Your task to perform on an android device: read, delete, or share a saved page in the chrome app Image 0: 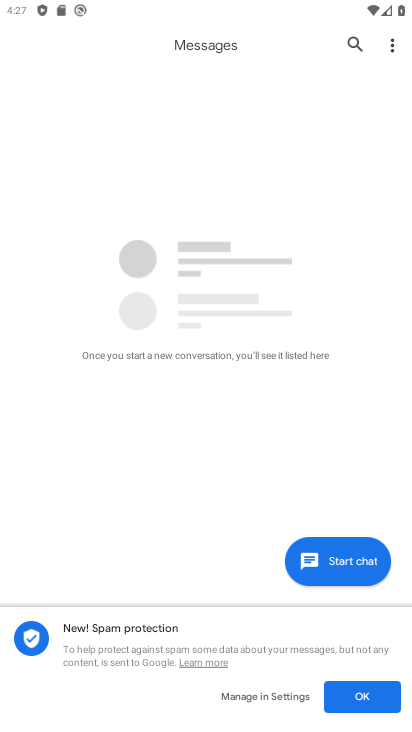
Step 0: press back button
Your task to perform on an android device: read, delete, or share a saved page in the chrome app Image 1: 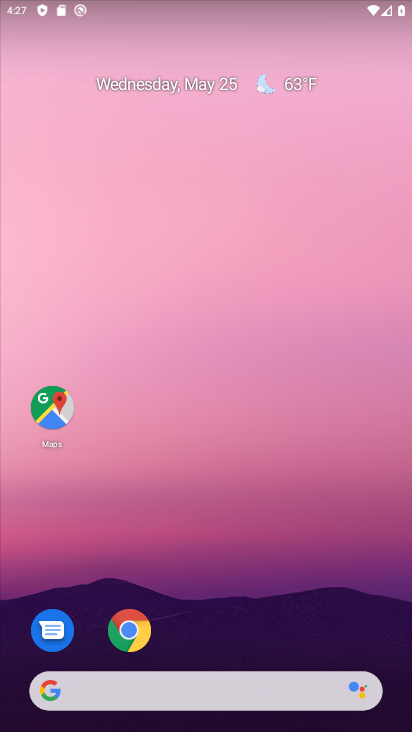
Step 1: click (120, 638)
Your task to perform on an android device: read, delete, or share a saved page in the chrome app Image 2: 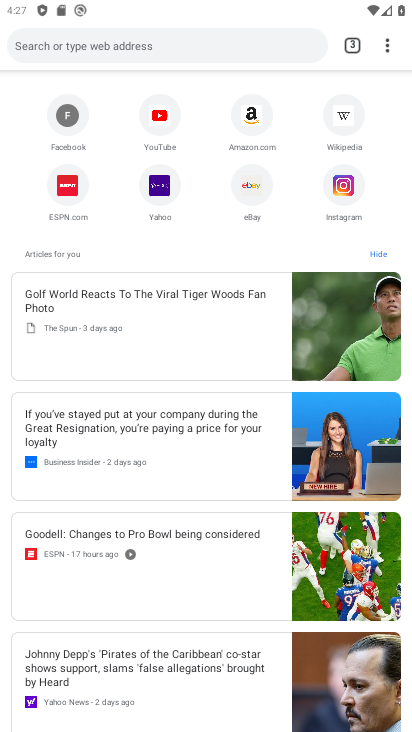
Step 2: drag from (384, 49) to (220, 302)
Your task to perform on an android device: read, delete, or share a saved page in the chrome app Image 3: 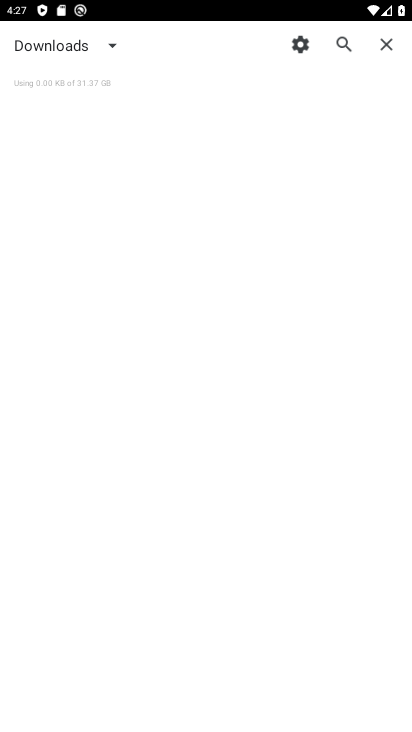
Step 3: click (105, 51)
Your task to perform on an android device: read, delete, or share a saved page in the chrome app Image 4: 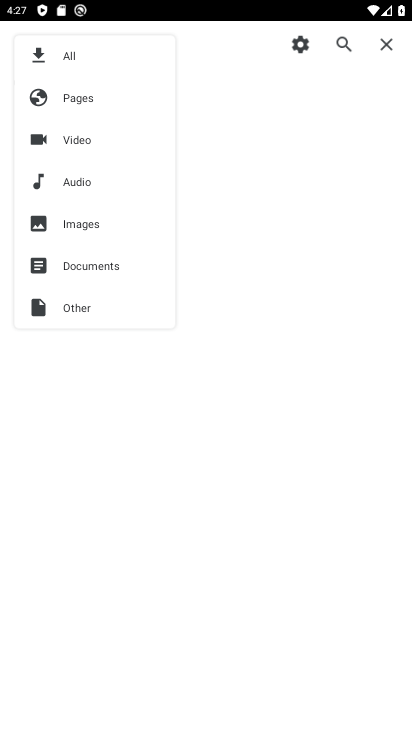
Step 4: click (89, 95)
Your task to perform on an android device: read, delete, or share a saved page in the chrome app Image 5: 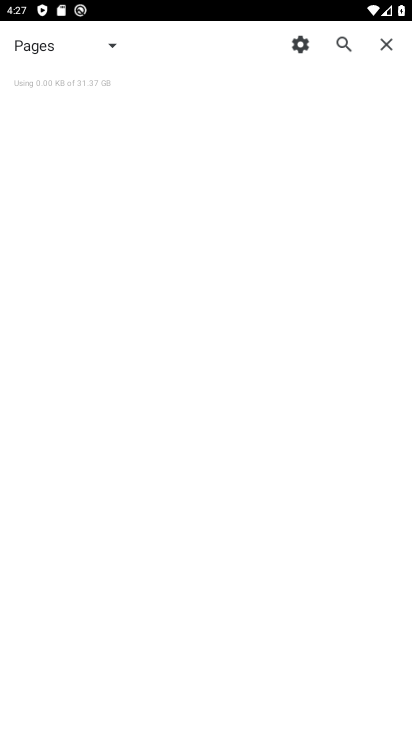
Step 5: task complete